Your task to perform on an android device: choose inbox layout in the gmail app Image 0: 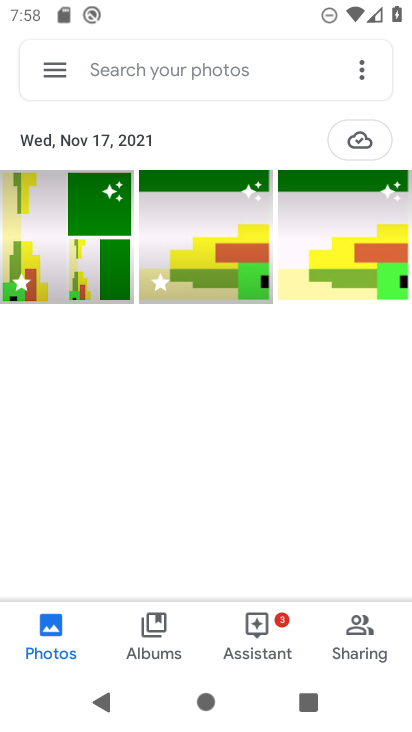
Step 0: press home button
Your task to perform on an android device: choose inbox layout in the gmail app Image 1: 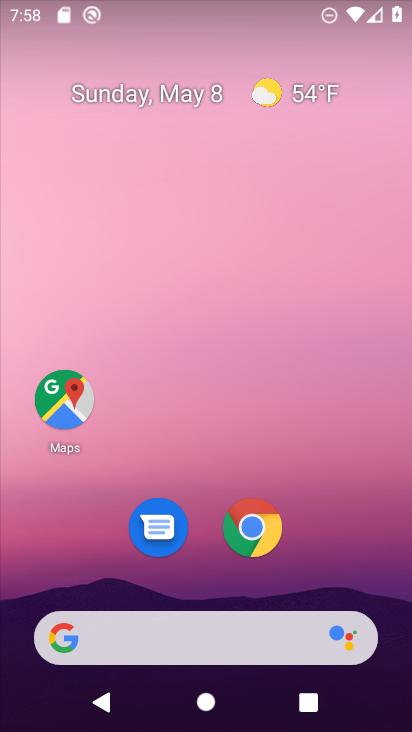
Step 1: drag from (373, 516) to (258, 74)
Your task to perform on an android device: choose inbox layout in the gmail app Image 2: 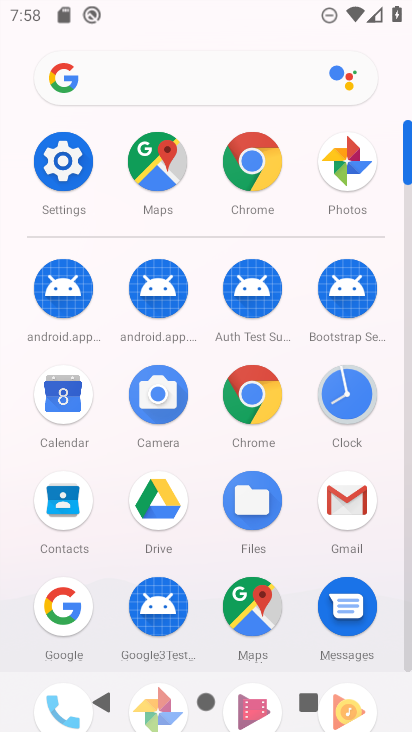
Step 2: click (368, 482)
Your task to perform on an android device: choose inbox layout in the gmail app Image 3: 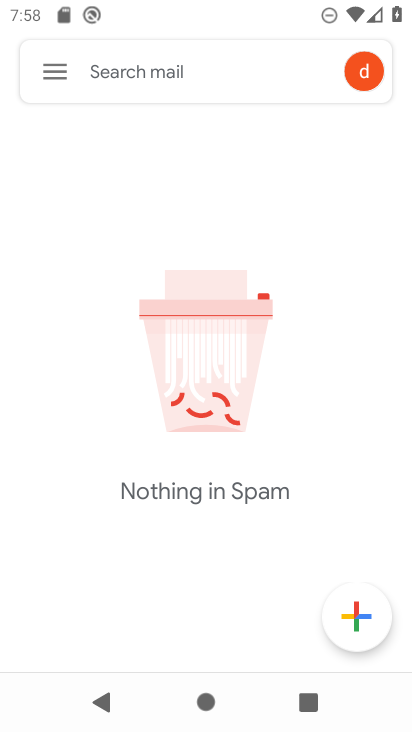
Step 3: click (59, 73)
Your task to perform on an android device: choose inbox layout in the gmail app Image 4: 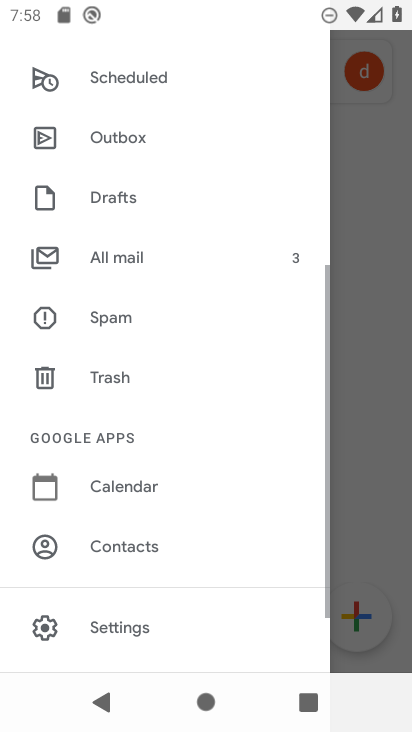
Step 4: drag from (91, 566) to (145, 211)
Your task to perform on an android device: choose inbox layout in the gmail app Image 5: 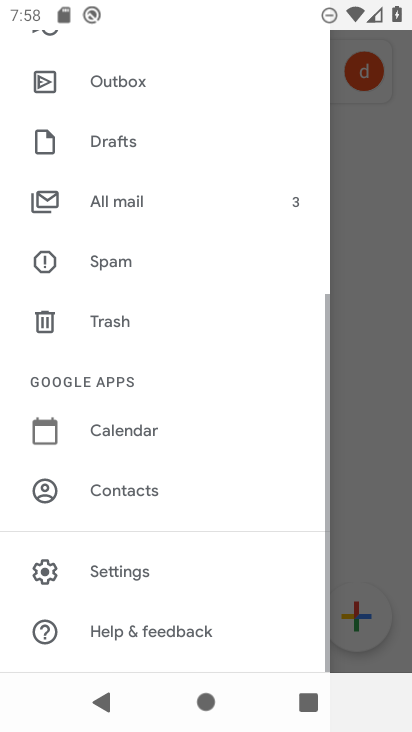
Step 5: click (86, 565)
Your task to perform on an android device: choose inbox layout in the gmail app Image 6: 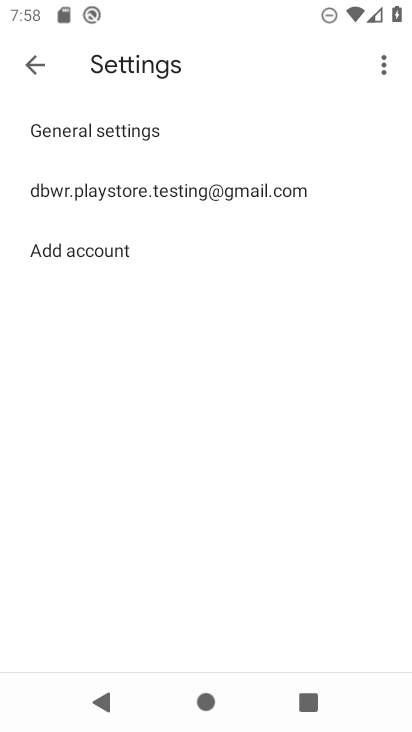
Step 6: click (188, 184)
Your task to perform on an android device: choose inbox layout in the gmail app Image 7: 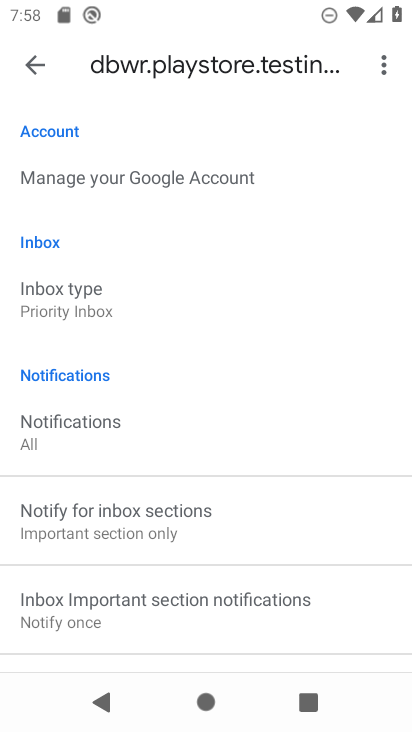
Step 7: click (92, 298)
Your task to perform on an android device: choose inbox layout in the gmail app Image 8: 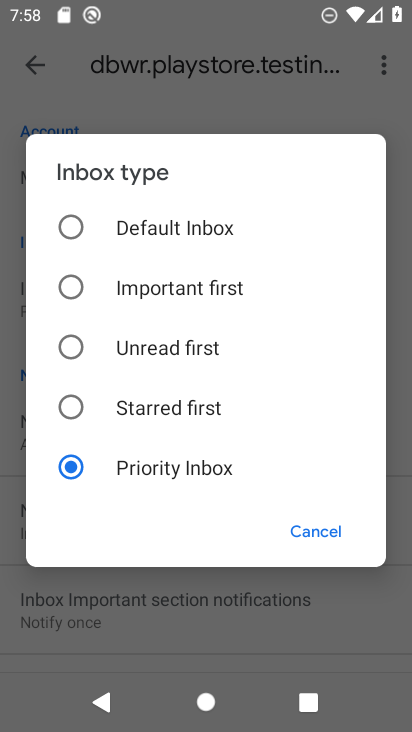
Step 8: task complete